Your task to perform on an android device: turn on the 24-hour format for clock Image 0: 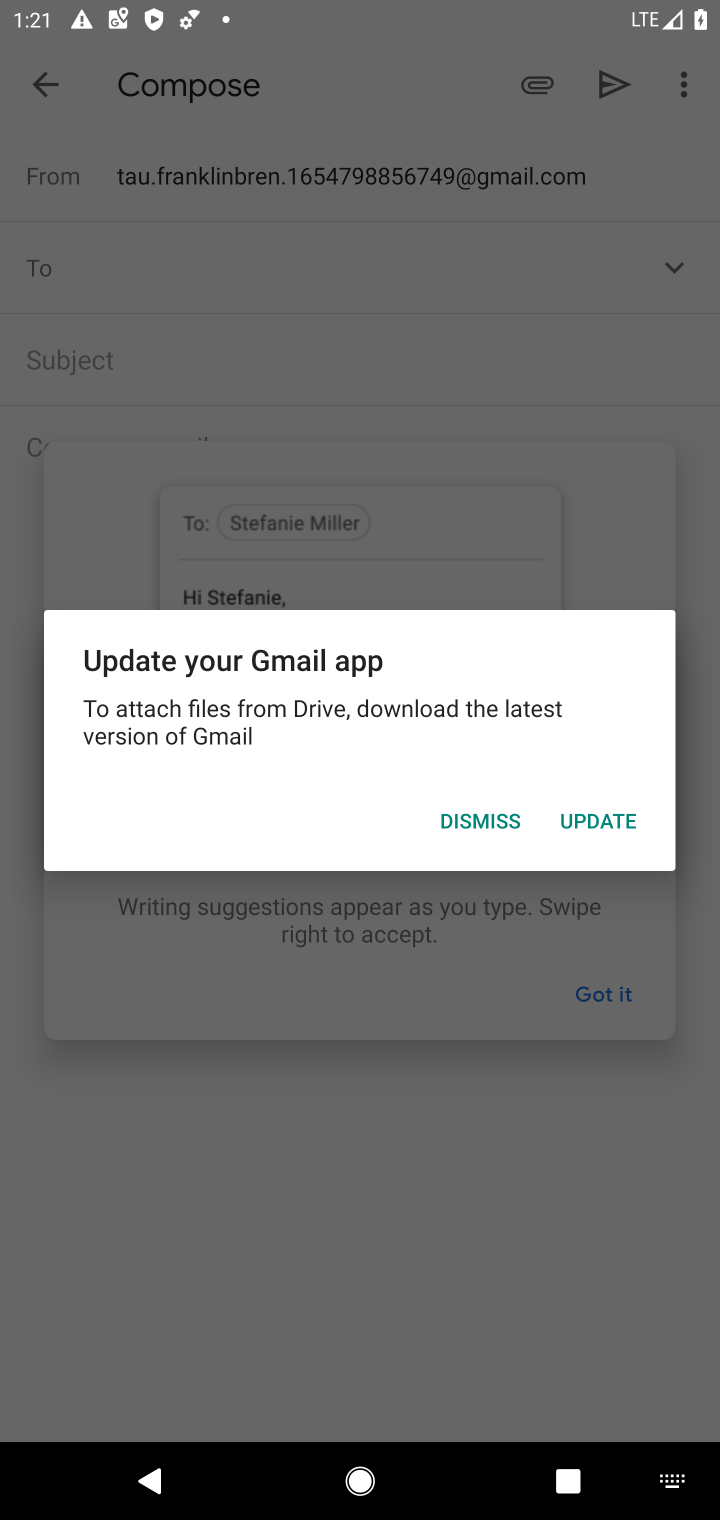
Step 0: press home button
Your task to perform on an android device: turn on the 24-hour format for clock Image 1: 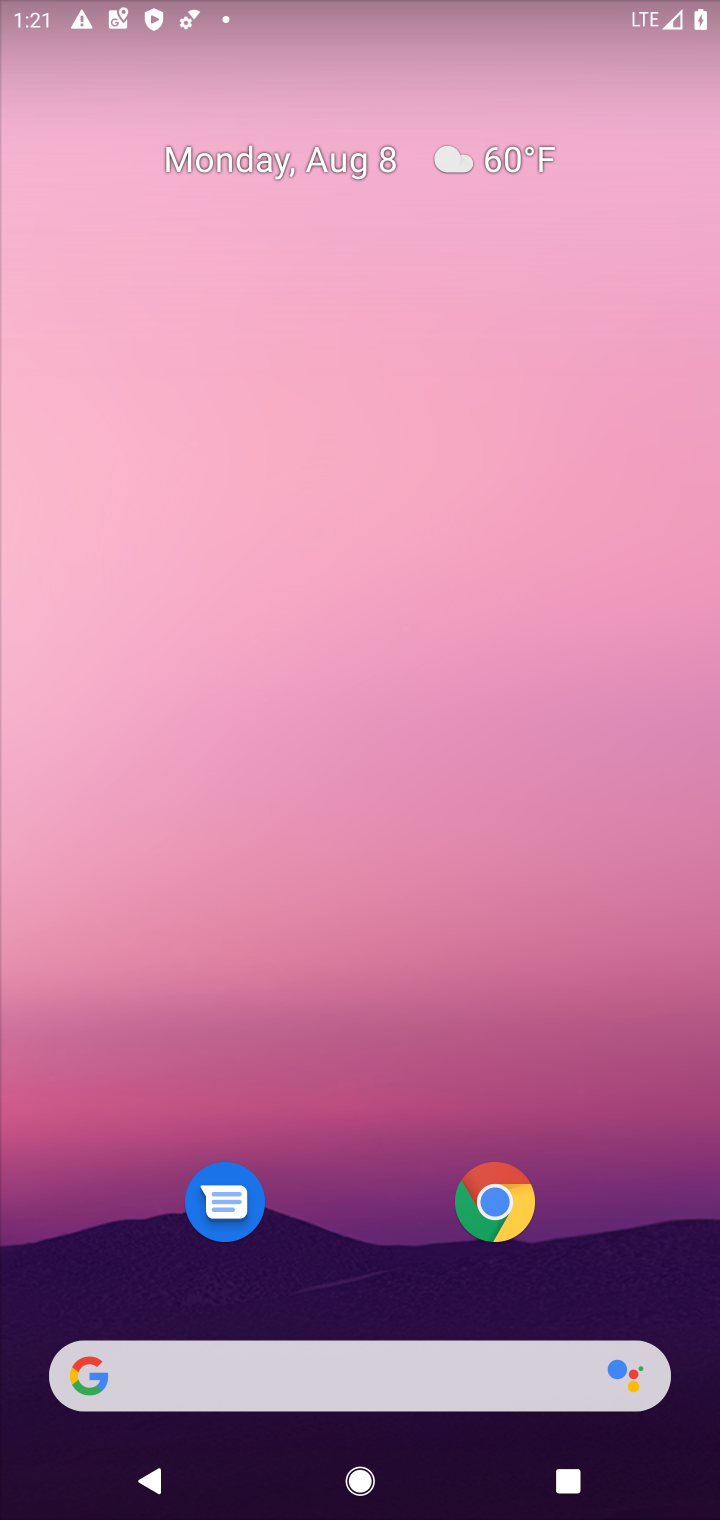
Step 1: drag from (339, 1276) to (260, 70)
Your task to perform on an android device: turn on the 24-hour format for clock Image 2: 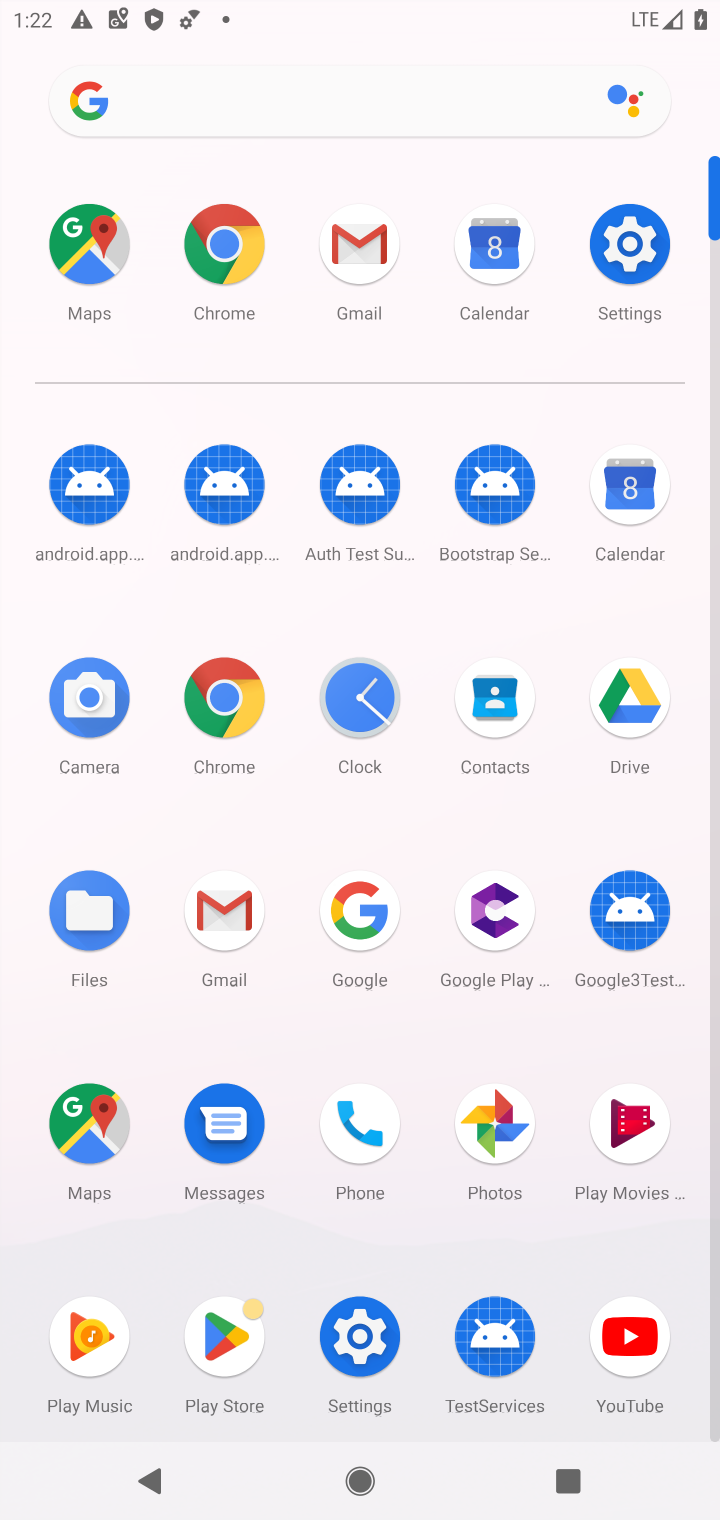
Step 2: click (331, 720)
Your task to perform on an android device: turn on the 24-hour format for clock Image 3: 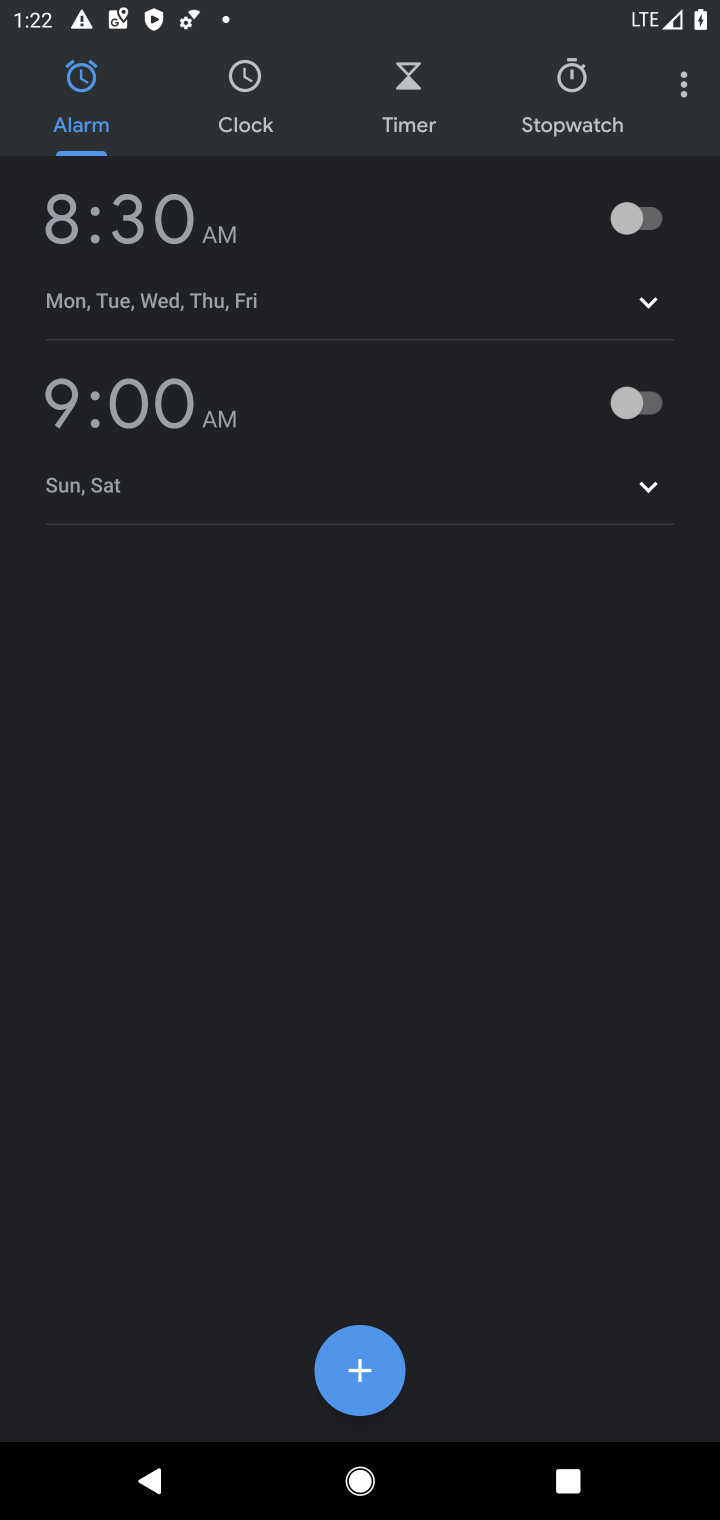
Step 3: click (689, 96)
Your task to perform on an android device: turn on the 24-hour format for clock Image 4: 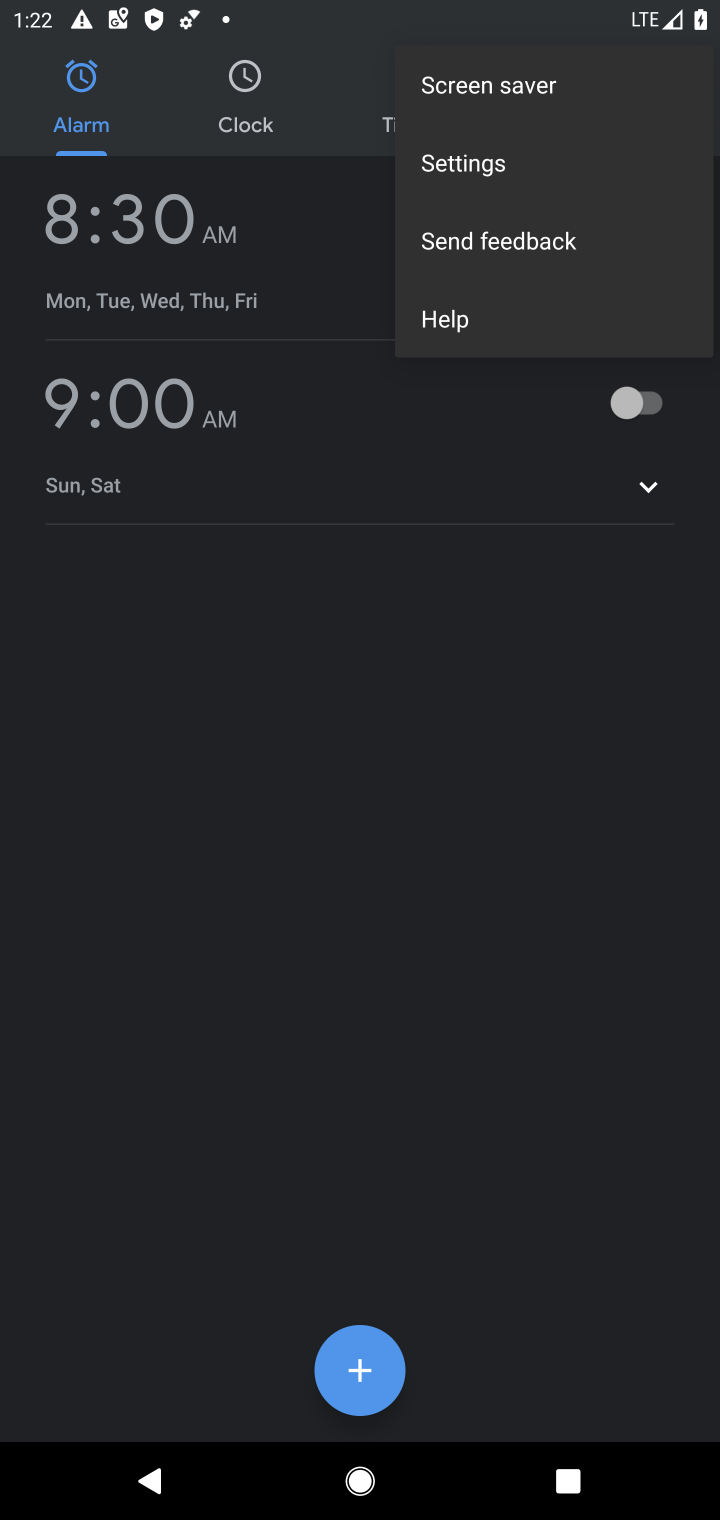
Step 4: click (459, 163)
Your task to perform on an android device: turn on the 24-hour format for clock Image 5: 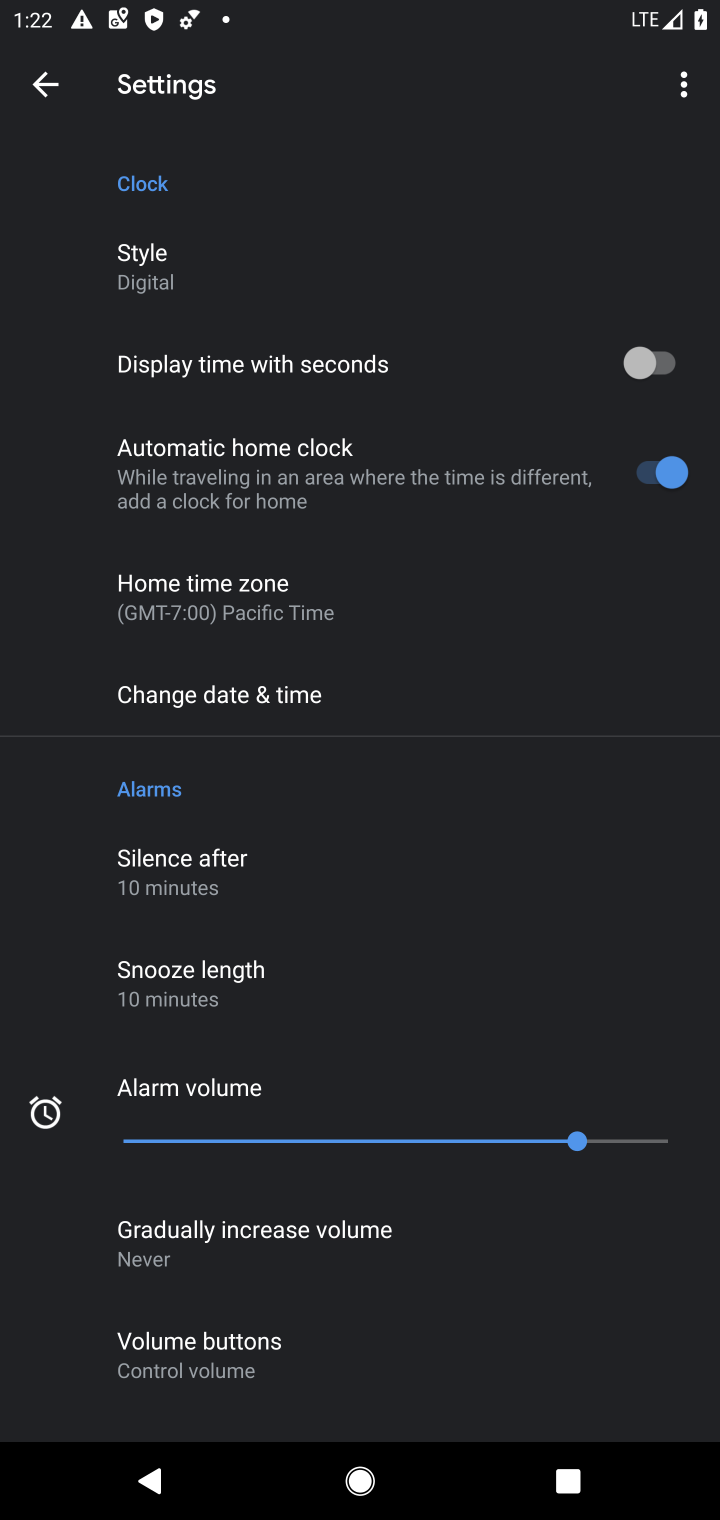
Step 5: click (255, 695)
Your task to perform on an android device: turn on the 24-hour format for clock Image 6: 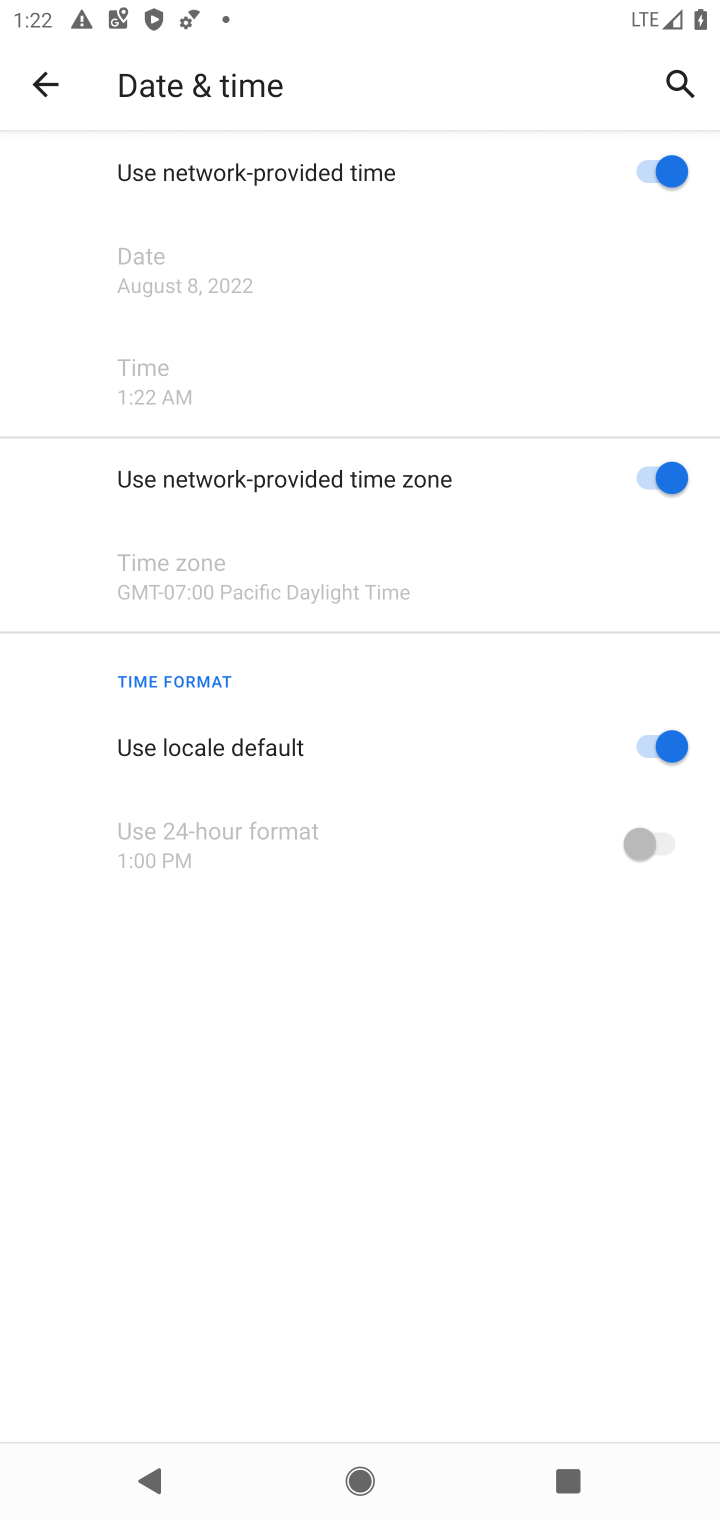
Step 6: click (650, 751)
Your task to perform on an android device: turn on the 24-hour format for clock Image 7: 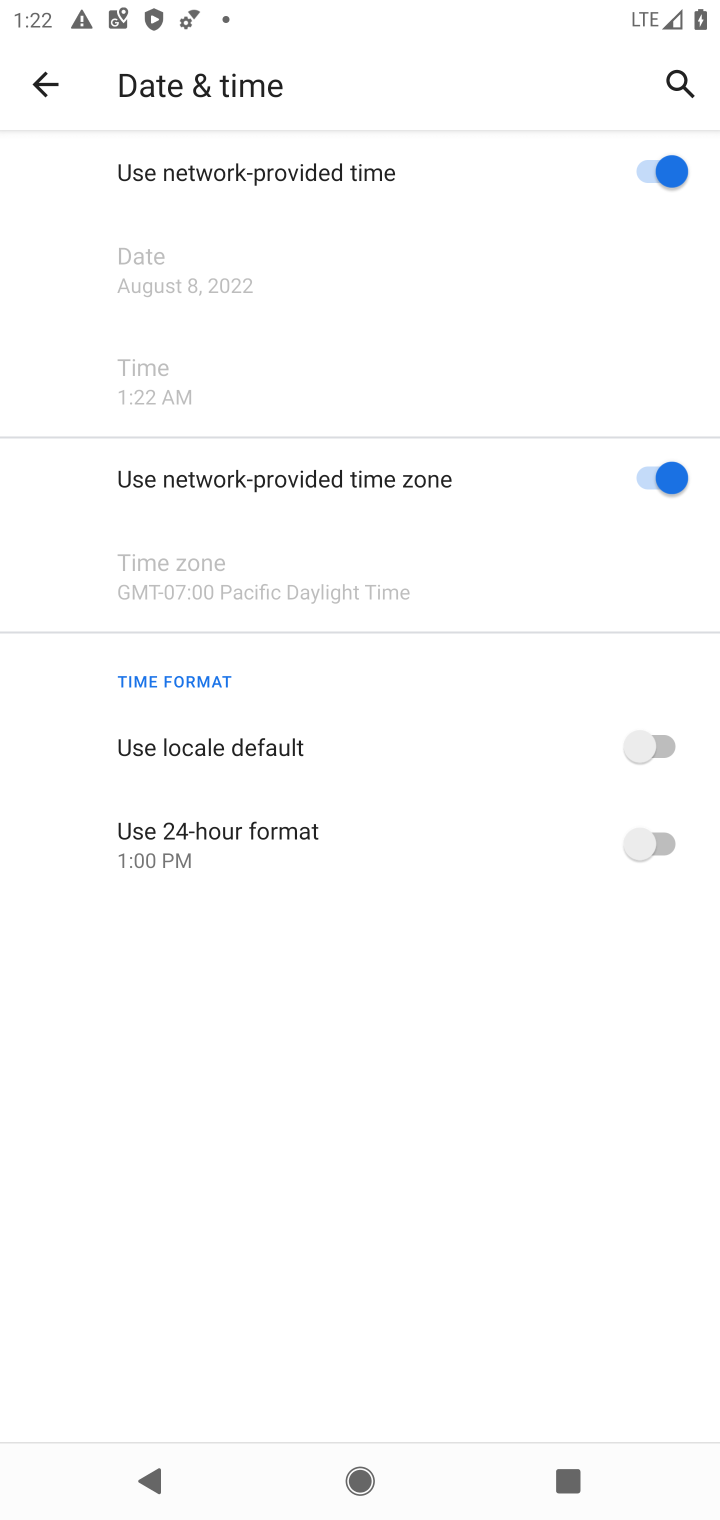
Step 7: click (673, 860)
Your task to perform on an android device: turn on the 24-hour format for clock Image 8: 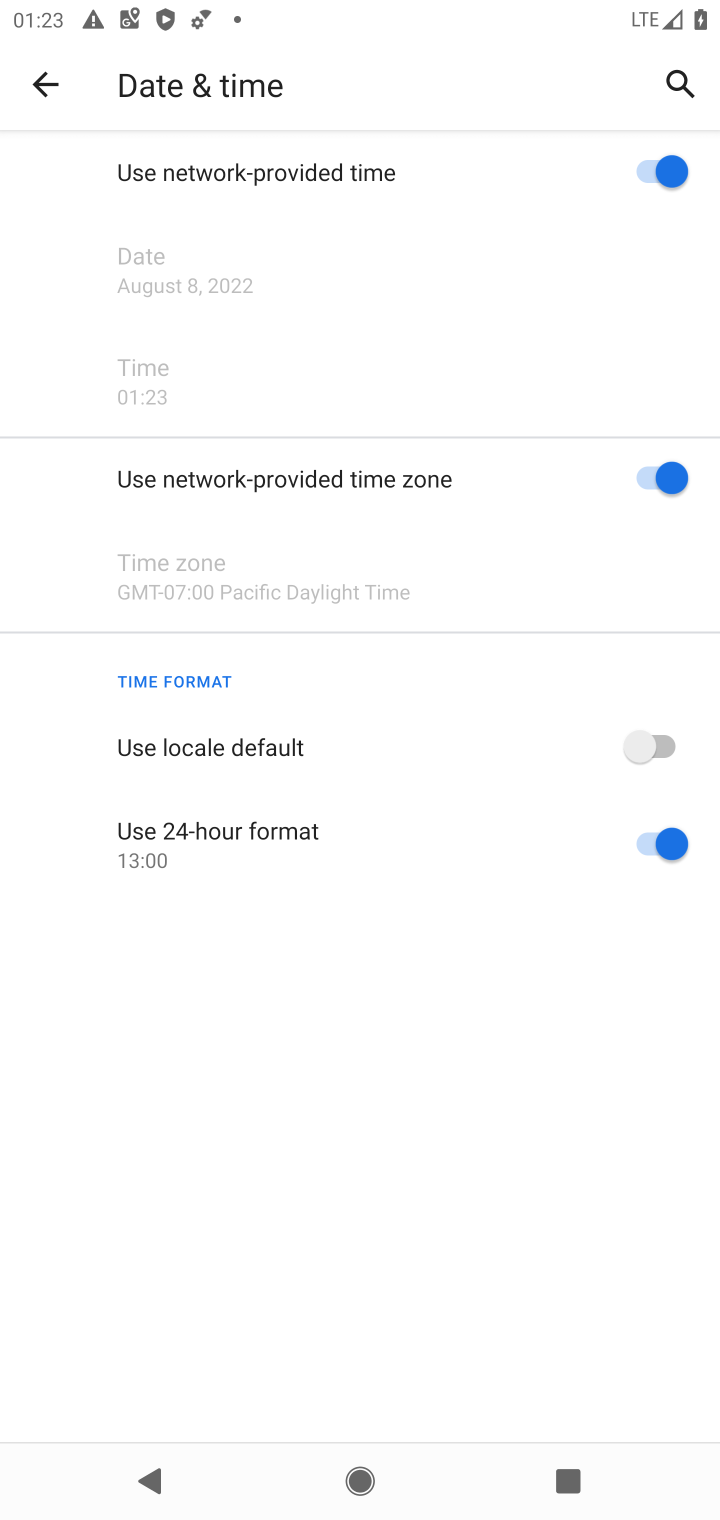
Step 8: task complete